Your task to perform on an android device: delete a single message in the gmail app Image 0: 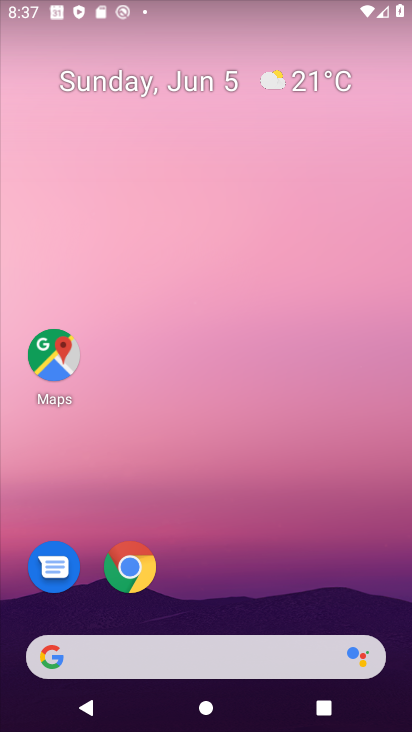
Step 0: drag from (208, 594) to (260, 265)
Your task to perform on an android device: delete a single message in the gmail app Image 1: 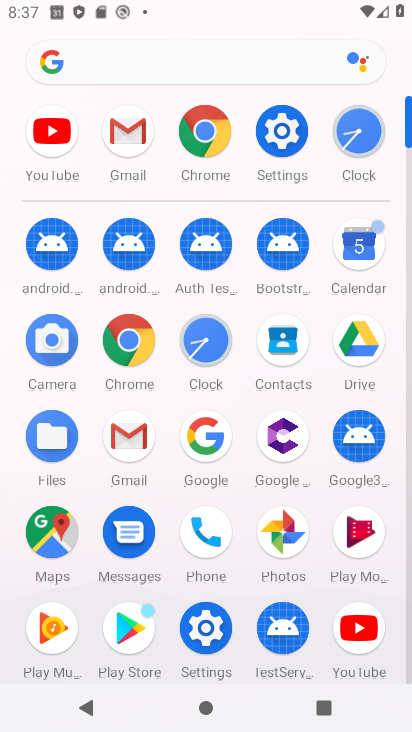
Step 1: click (90, 132)
Your task to perform on an android device: delete a single message in the gmail app Image 2: 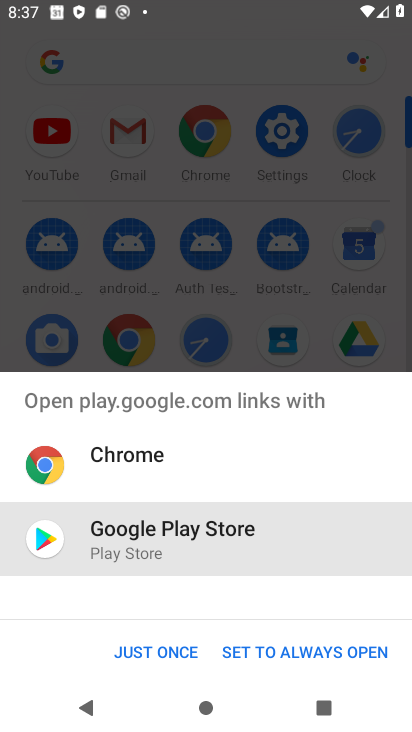
Step 2: press back button
Your task to perform on an android device: delete a single message in the gmail app Image 3: 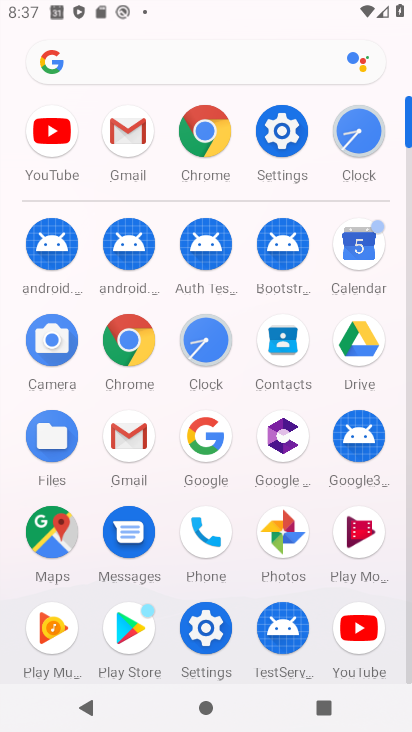
Step 3: click (131, 130)
Your task to perform on an android device: delete a single message in the gmail app Image 4: 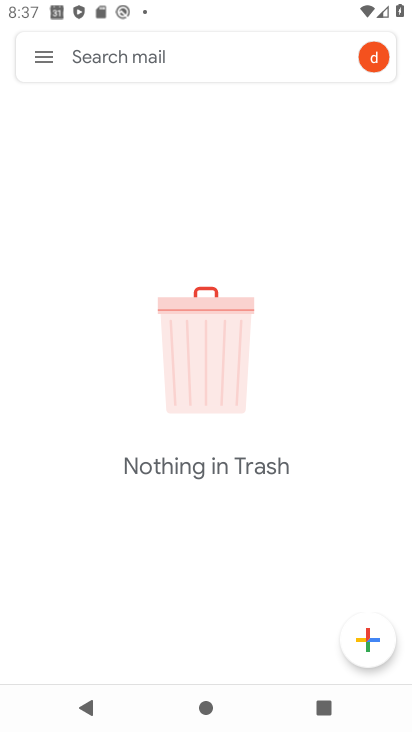
Step 4: click (43, 56)
Your task to perform on an android device: delete a single message in the gmail app Image 5: 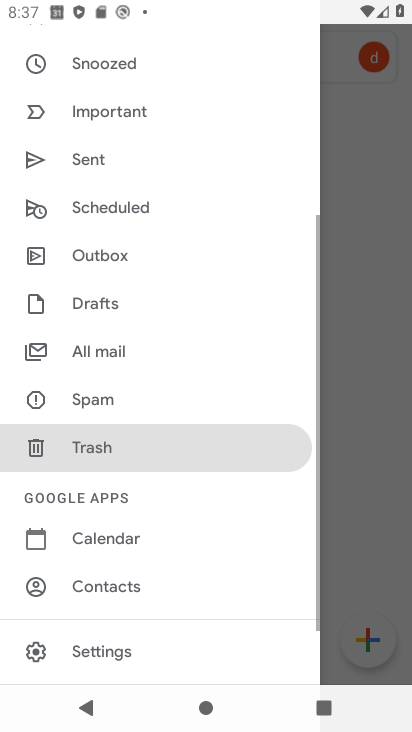
Step 5: drag from (132, 119) to (107, 566)
Your task to perform on an android device: delete a single message in the gmail app Image 6: 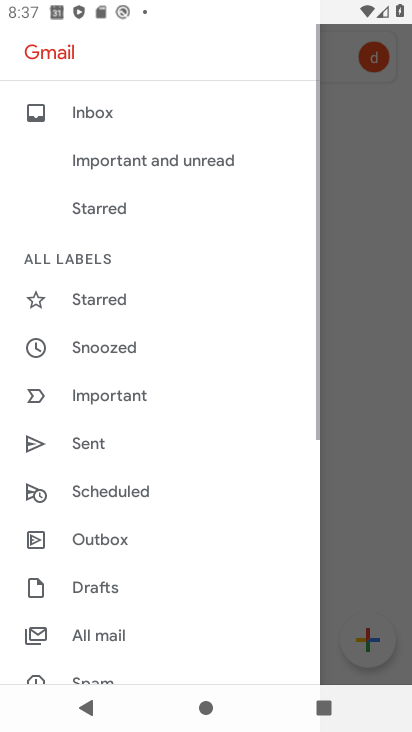
Step 6: click (113, 107)
Your task to perform on an android device: delete a single message in the gmail app Image 7: 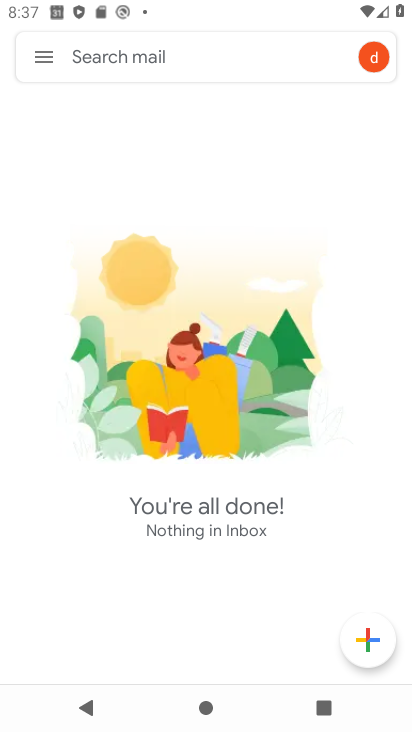
Step 7: task complete